Your task to perform on an android device: open chrome and create a bookmark for the current page Image 0: 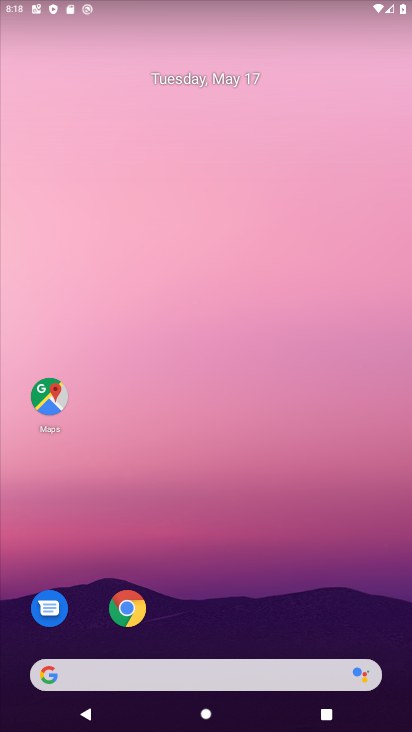
Step 0: click (118, 605)
Your task to perform on an android device: open chrome and create a bookmark for the current page Image 1: 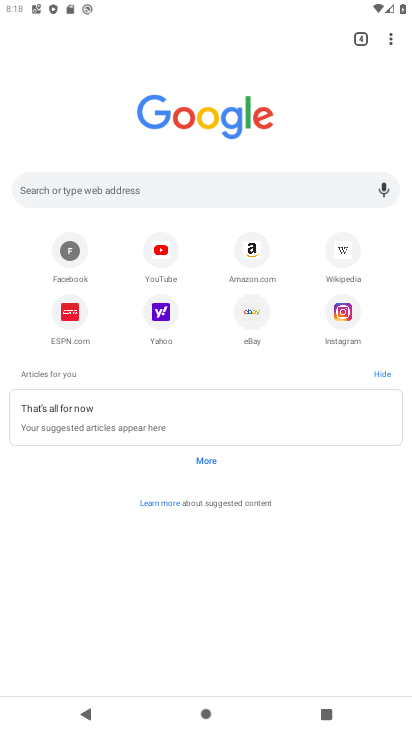
Step 1: click (393, 40)
Your task to perform on an android device: open chrome and create a bookmark for the current page Image 2: 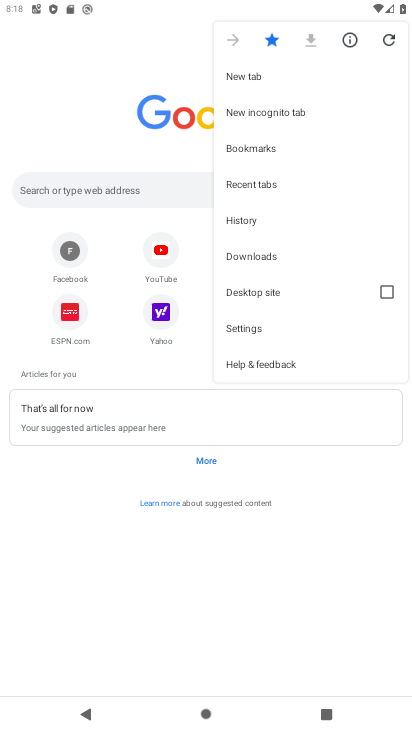
Step 2: task complete